Your task to perform on an android device: add a label to a message in the gmail app Image 0: 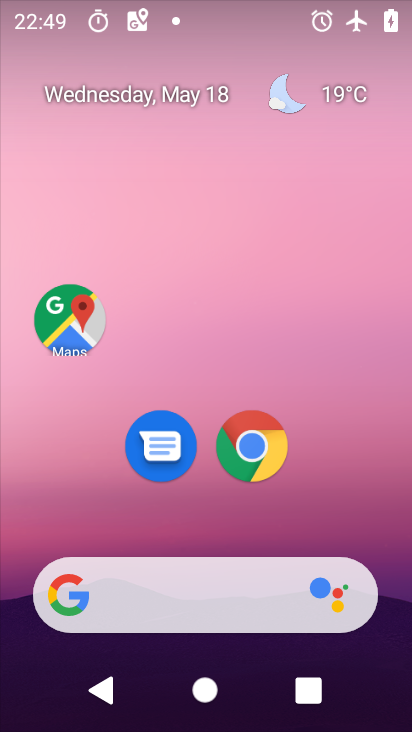
Step 0: press home button
Your task to perform on an android device: add a label to a message in the gmail app Image 1: 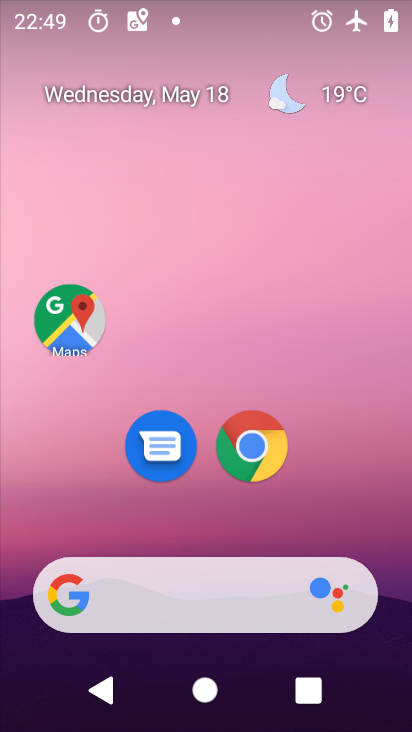
Step 1: drag from (192, 602) to (329, 130)
Your task to perform on an android device: add a label to a message in the gmail app Image 2: 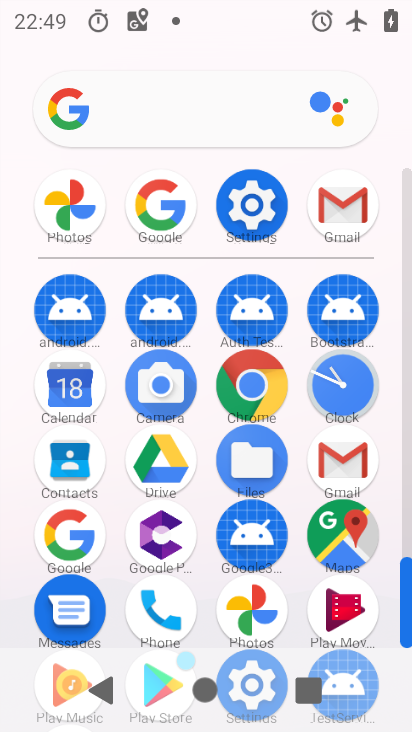
Step 2: click (349, 218)
Your task to perform on an android device: add a label to a message in the gmail app Image 3: 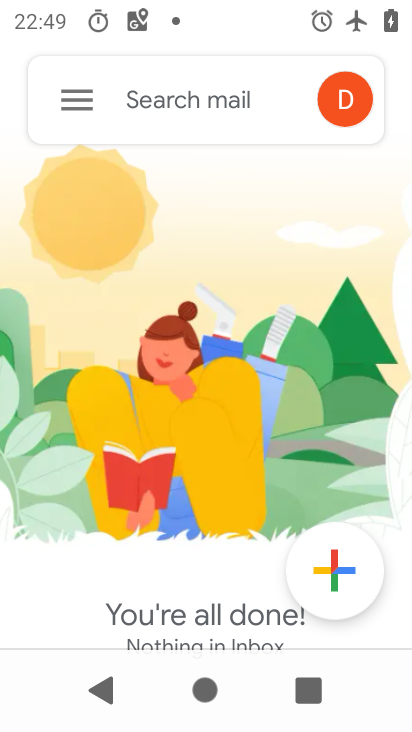
Step 3: task complete